Your task to perform on an android device: Open the Play Movies app and select the watchlist tab. Image 0: 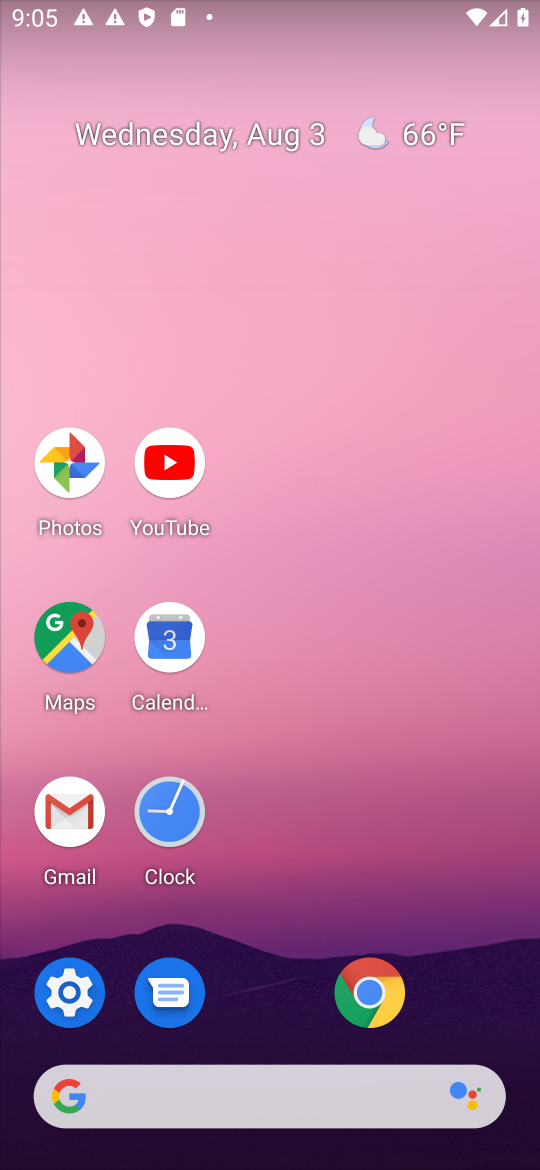
Step 0: drag from (284, 964) to (253, 6)
Your task to perform on an android device: Open the Play Movies app and select the watchlist tab. Image 1: 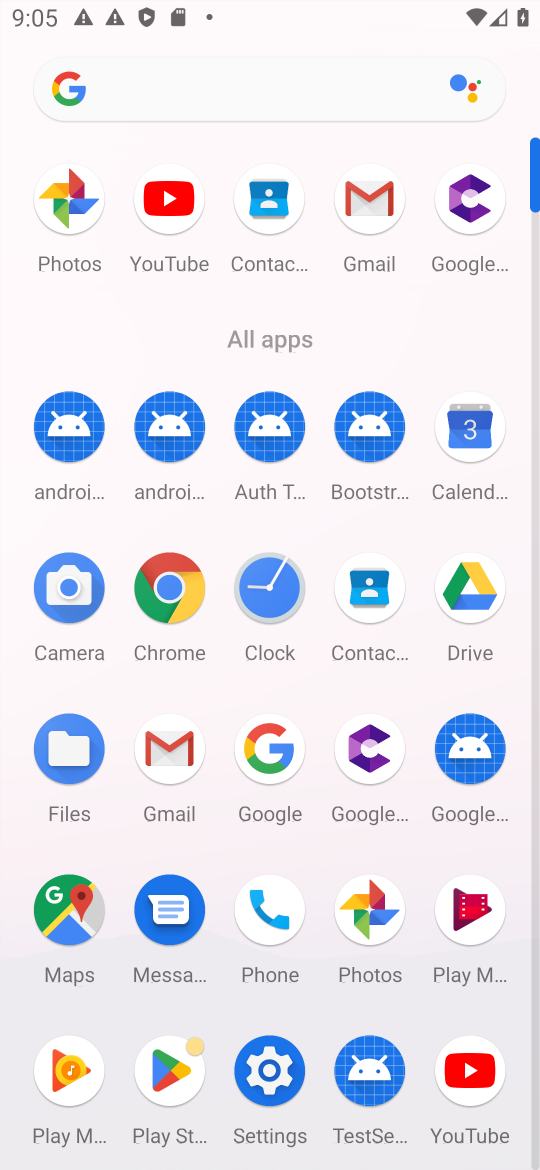
Step 1: click (464, 906)
Your task to perform on an android device: Open the Play Movies app and select the watchlist tab. Image 2: 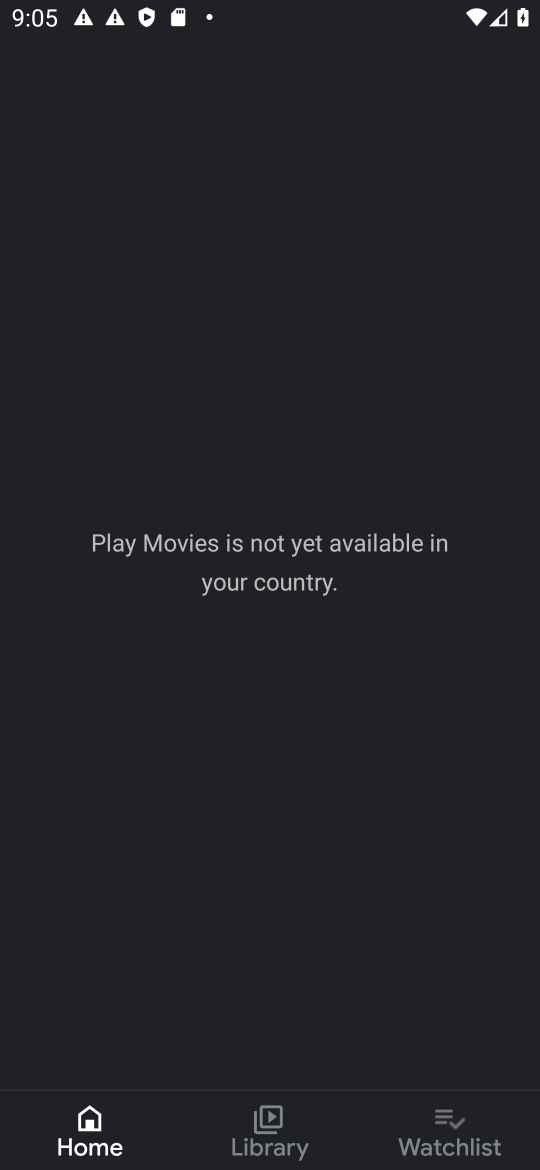
Step 2: click (447, 1125)
Your task to perform on an android device: Open the Play Movies app and select the watchlist tab. Image 3: 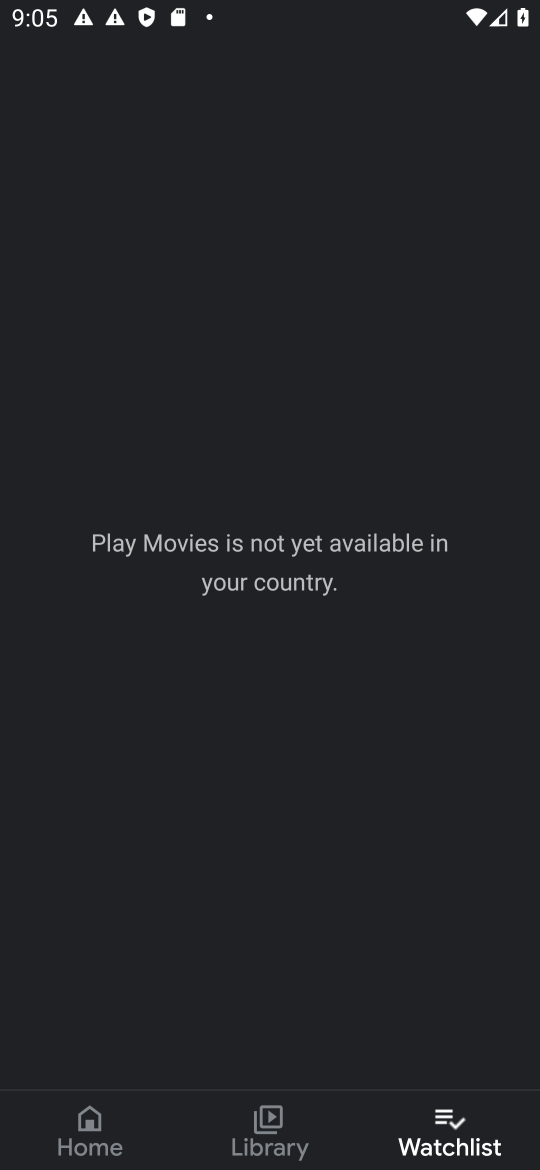
Step 3: task complete